Your task to perform on an android device: When is my next appointment? Image 0: 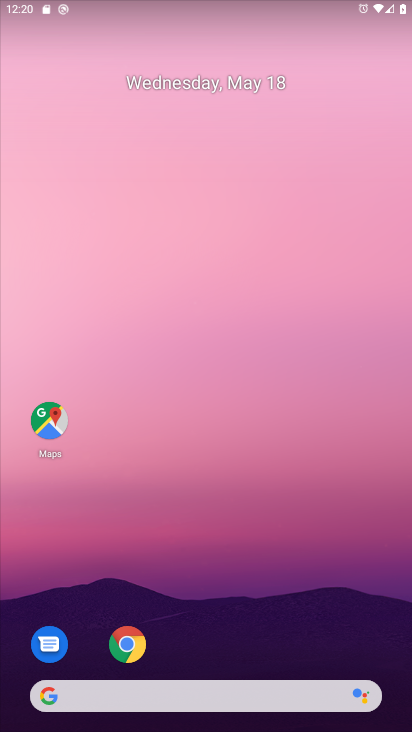
Step 0: press home button
Your task to perform on an android device: When is my next appointment? Image 1: 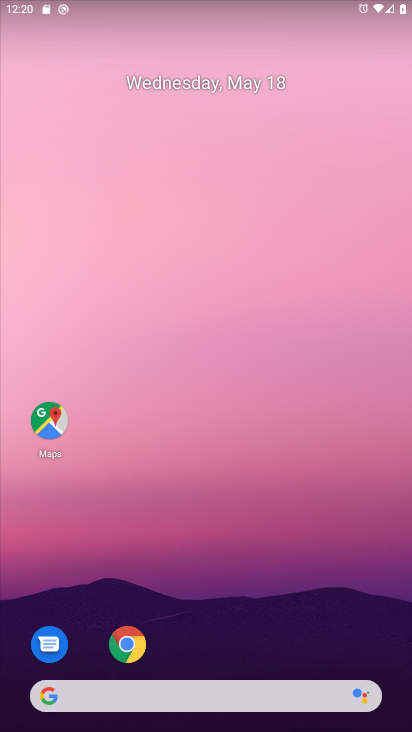
Step 1: drag from (216, 664) to (278, 115)
Your task to perform on an android device: When is my next appointment? Image 2: 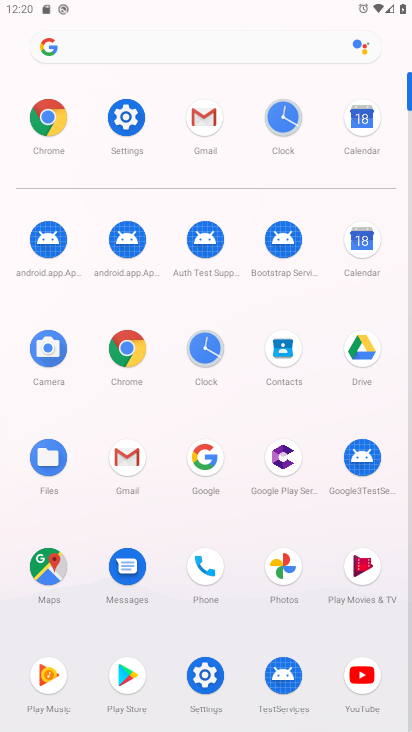
Step 2: click (359, 247)
Your task to perform on an android device: When is my next appointment? Image 3: 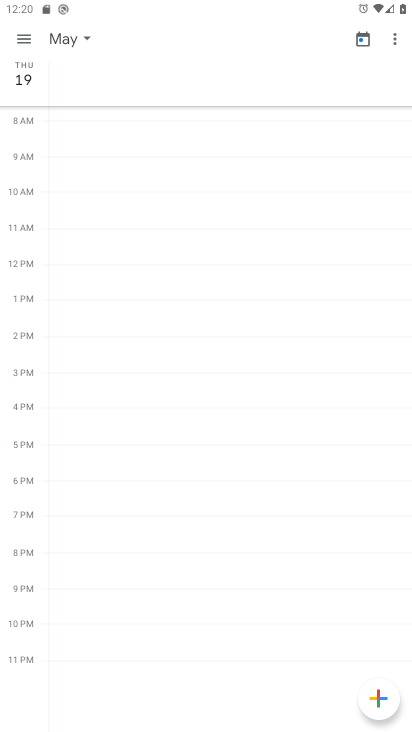
Step 3: click (27, 43)
Your task to perform on an android device: When is my next appointment? Image 4: 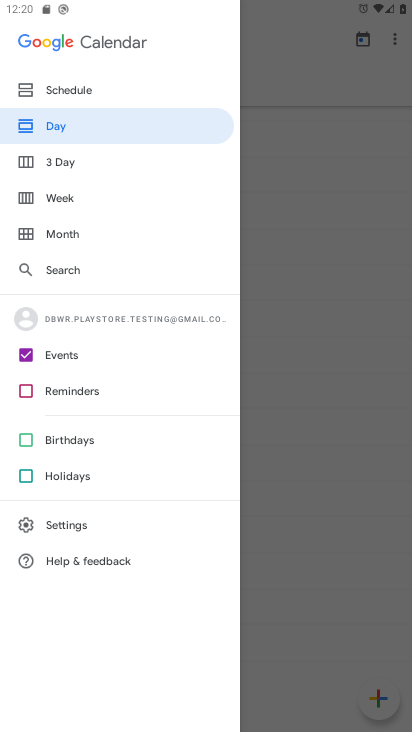
Step 4: click (53, 195)
Your task to perform on an android device: When is my next appointment? Image 5: 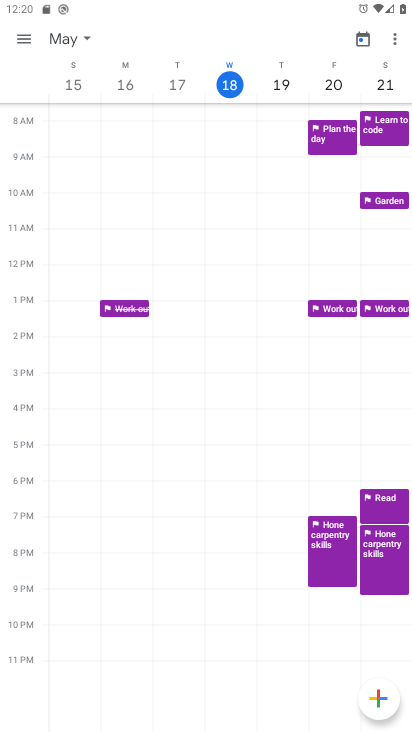
Step 5: click (229, 82)
Your task to perform on an android device: When is my next appointment? Image 6: 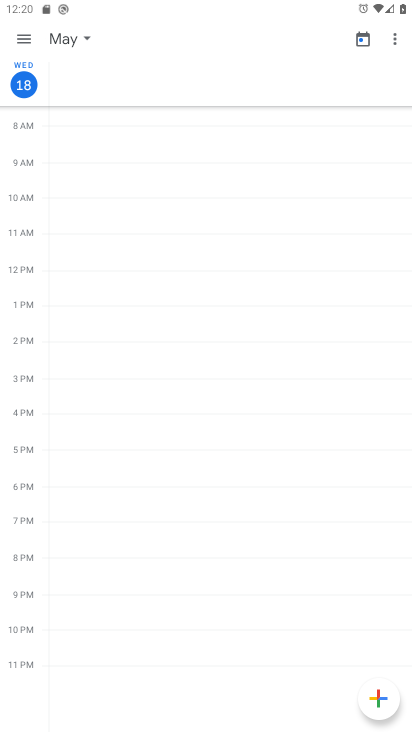
Step 6: click (33, 90)
Your task to perform on an android device: When is my next appointment? Image 7: 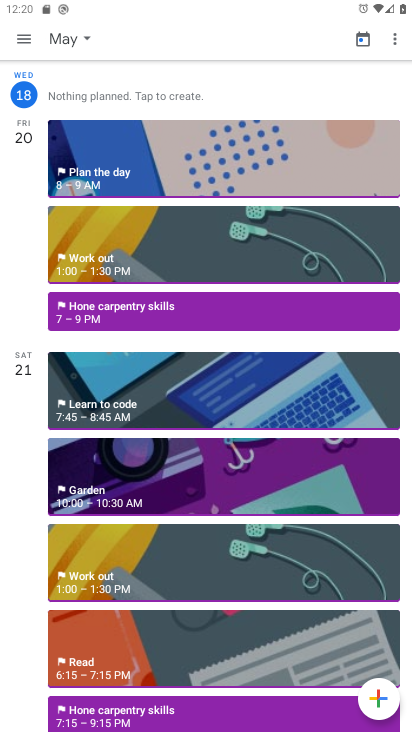
Step 7: drag from (25, 397) to (40, 236)
Your task to perform on an android device: When is my next appointment? Image 8: 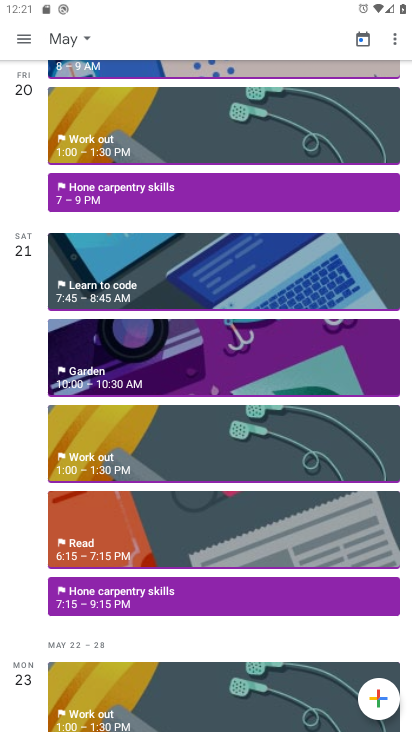
Step 8: click (52, 143)
Your task to perform on an android device: When is my next appointment? Image 9: 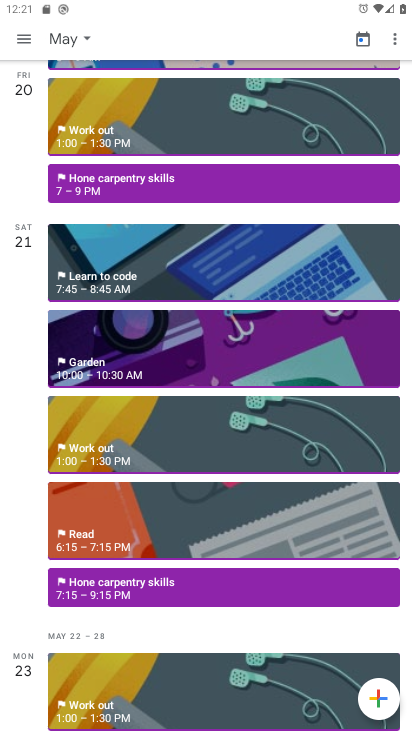
Step 9: drag from (30, 417) to (38, 179)
Your task to perform on an android device: When is my next appointment? Image 10: 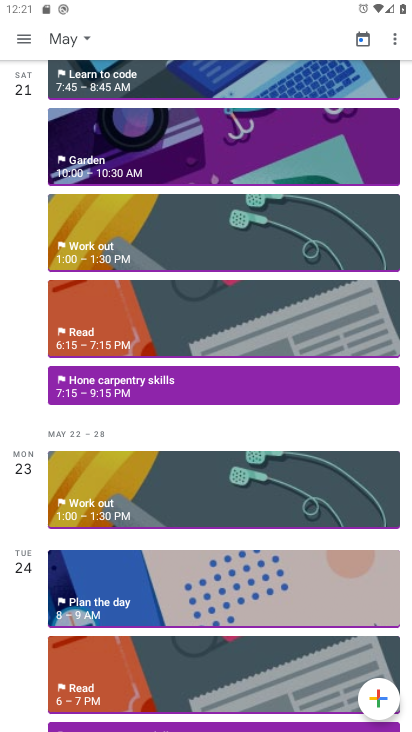
Step 10: click (48, 127)
Your task to perform on an android device: When is my next appointment? Image 11: 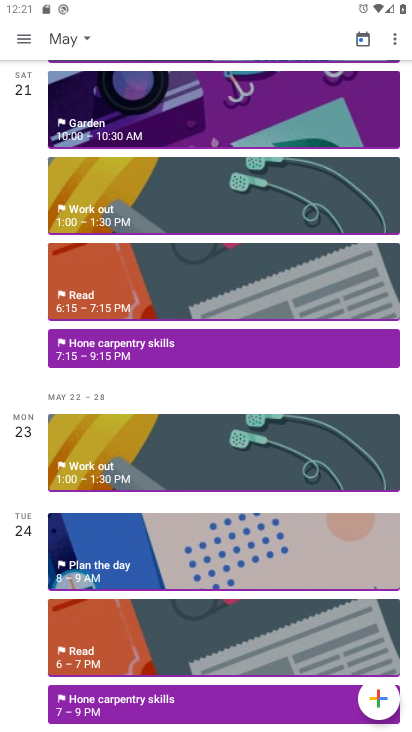
Step 11: task complete